Your task to perform on an android device: all mails in gmail Image 0: 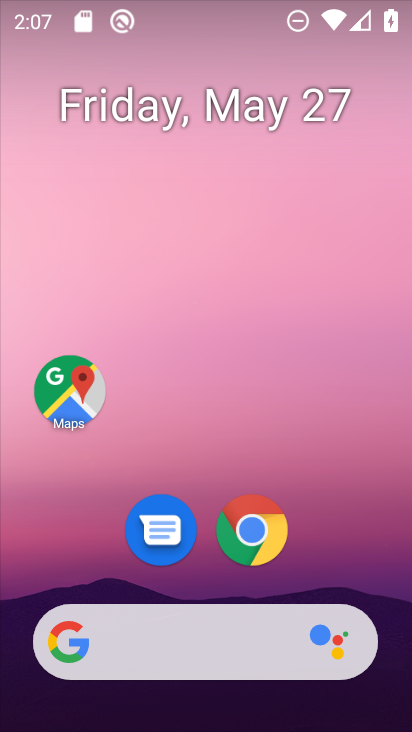
Step 0: click (117, 72)
Your task to perform on an android device: all mails in gmail Image 1: 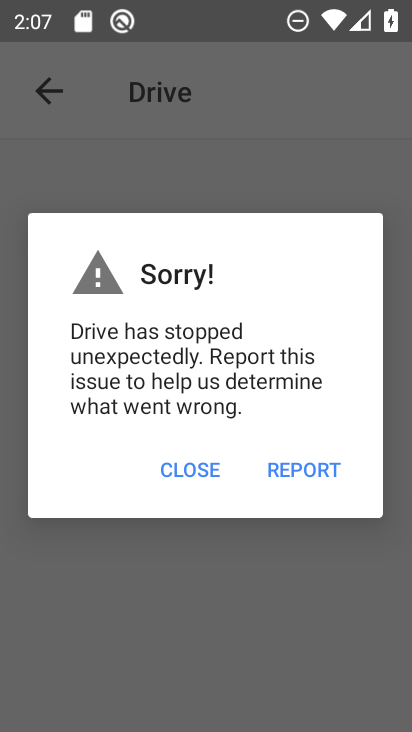
Step 1: press home button
Your task to perform on an android device: all mails in gmail Image 2: 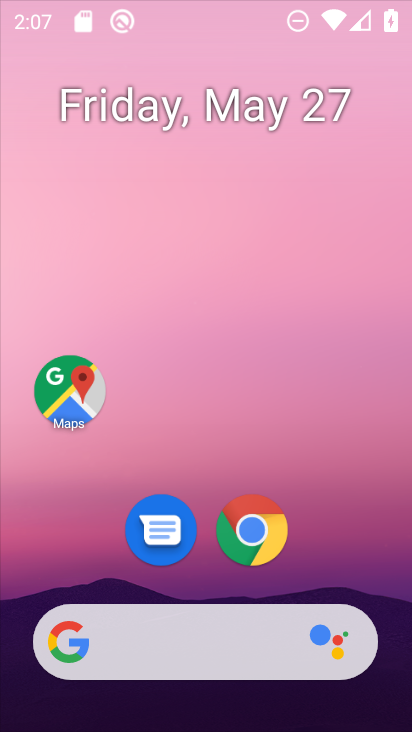
Step 2: drag from (147, 584) to (157, 40)
Your task to perform on an android device: all mails in gmail Image 3: 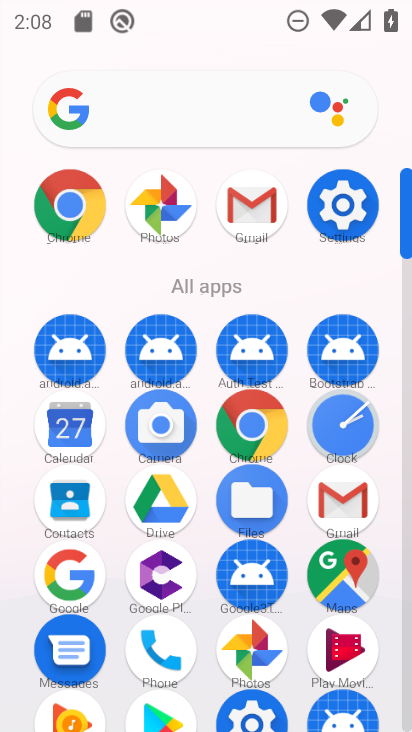
Step 3: click (267, 195)
Your task to perform on an android device: all mails in gmail Image 4: 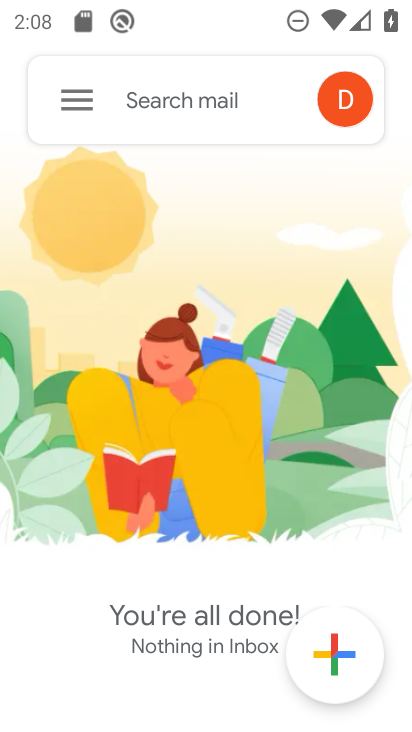
Step 4: click (82, 106)
Your task to perform on an android device: all mails in gmail Image 5: 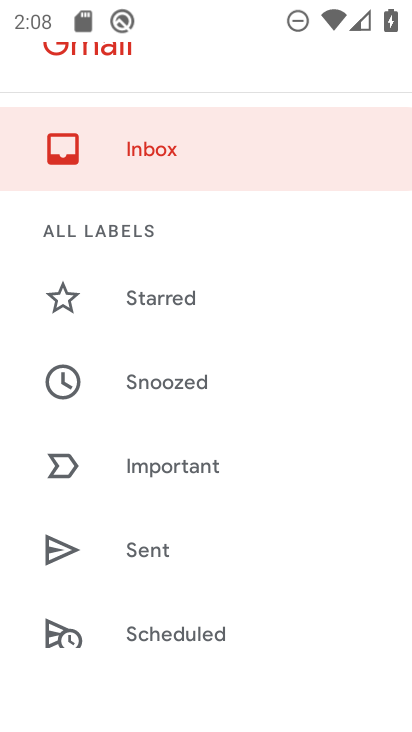
Step 5: drag from (272, 615) to (328, 227)
Your task to perform on an android device: all mails in gmail Image 6: 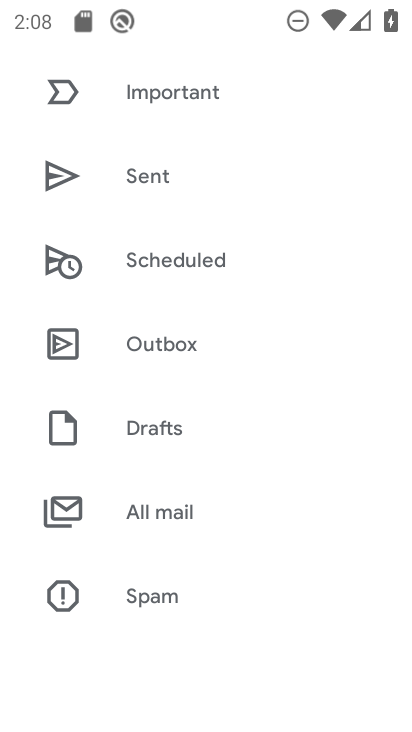
Step 6: click (145, 527)
Your task to perform on an android device: all mails in gmail Image 7: 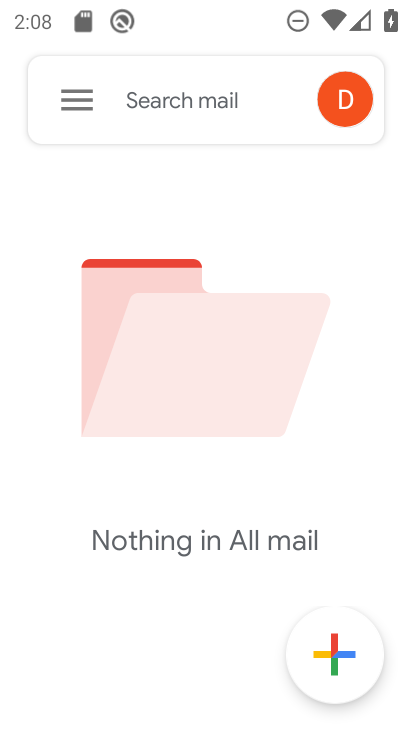
Step 7: task complete